Your task to perform on an android device: Go to ESPN.com Image 0: 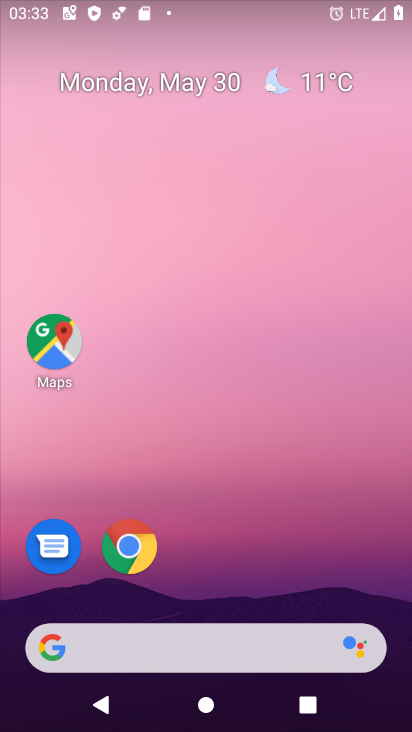
Step 0: press home button
Your task to perform on an android device: Go to ESPN.com Image 1: 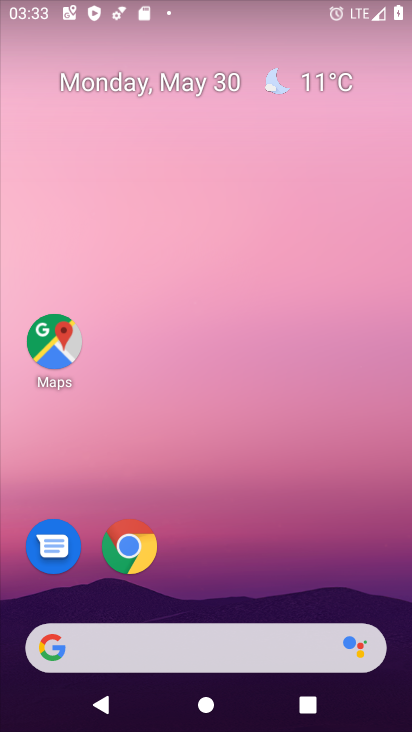
Step 1: click (126, 546)
Your task to perform on an android device: Go to ESPN.com Image 2: 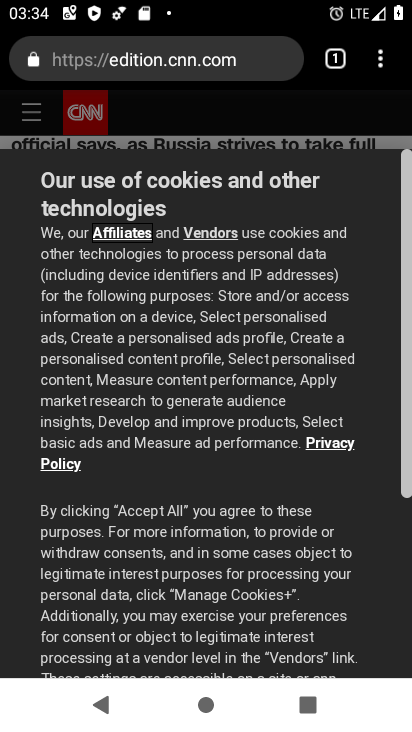
Step 2: drag from (207, 637) to (204, 214)
Your task to perform on an android device: Go to ESPN.com Image 3: 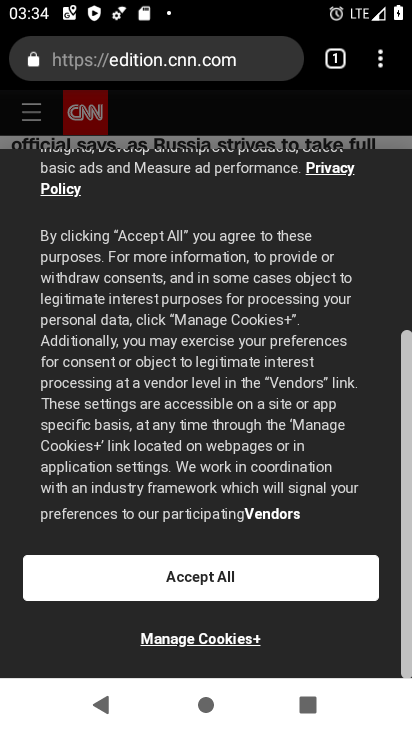
Step 3: click (220, 577)
Your task to perform on an android device: Go to ESPN.com Image 4: 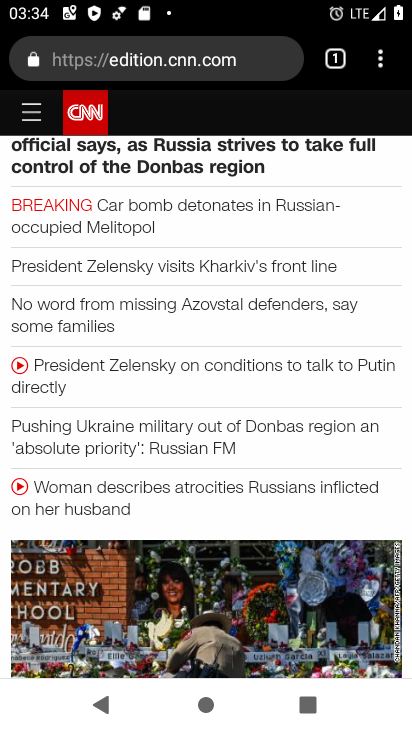
Step 4: click (329, 56)
Your task to perform on an android device: Go to ESPN.com Image 5: 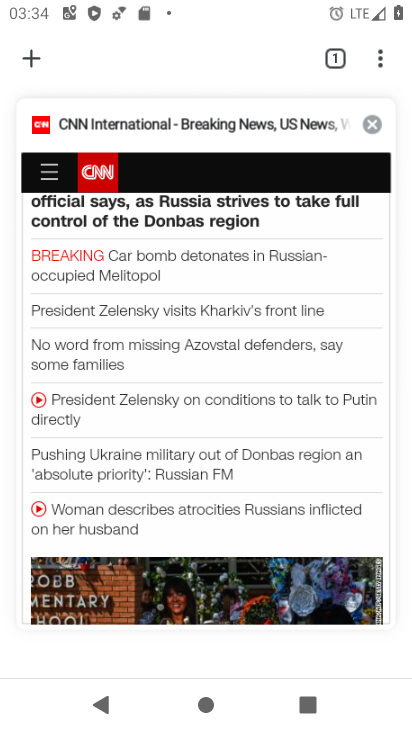
Step 5: click (370, 129)
Your task to perform on an android device: Go to ESPN.com Image 6: 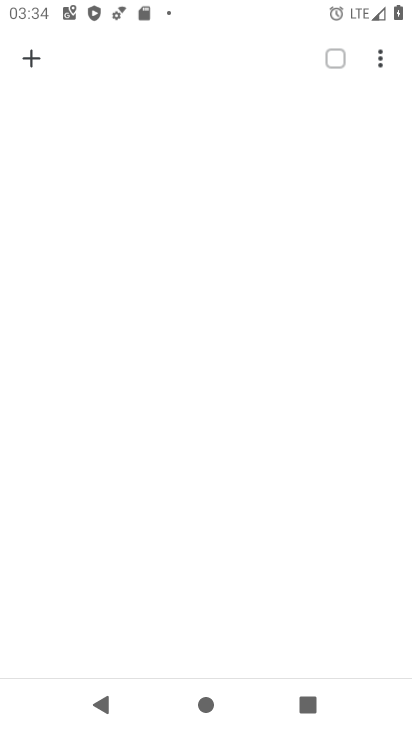
Step 6: click (29, 53)
Your task to perform on an android device: Go to ESPN.com Image 7: 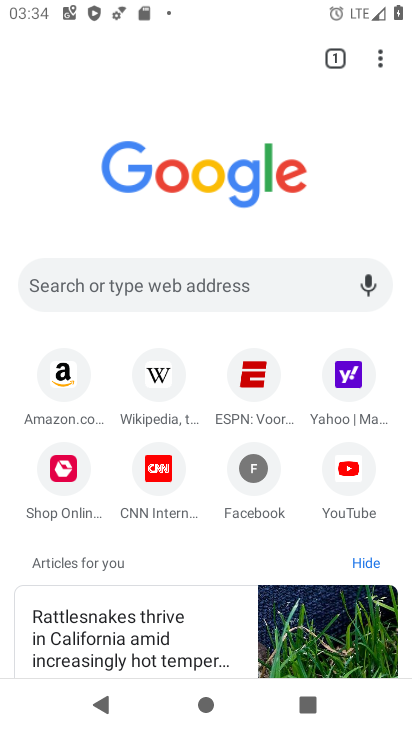
Step 7: click (255, 389)
Your task to perform on an android device: Go to ESPN.com Image 8: 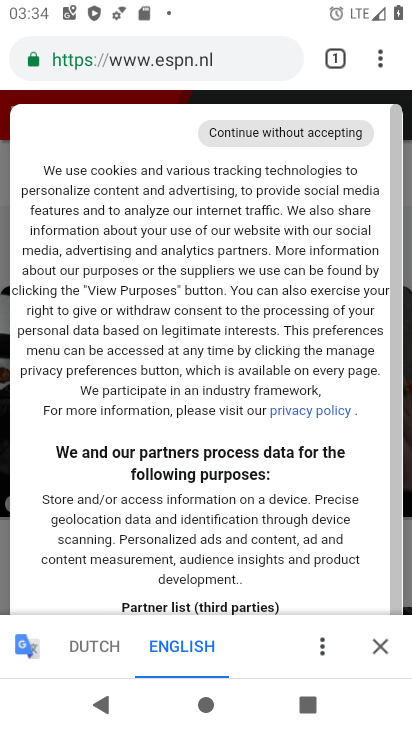
Step 8: drag from (259, 556) to (286, 26)
Your task to perform on an android device: Go to ESPN.com Image 9: 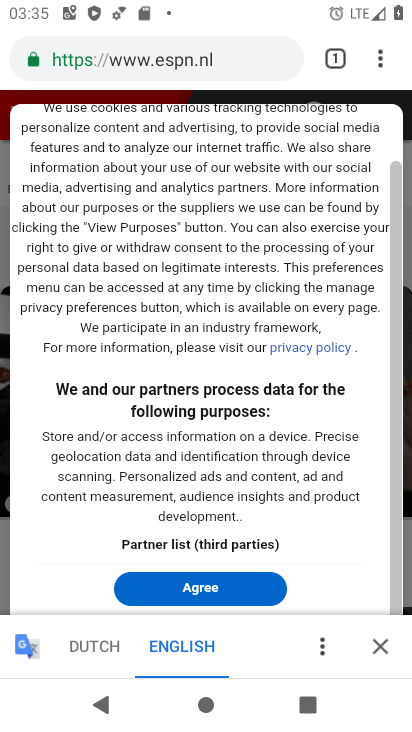
Step 9: click (211, 585)
Your task to perform on an android device: Go to ESPN.com Image 10: 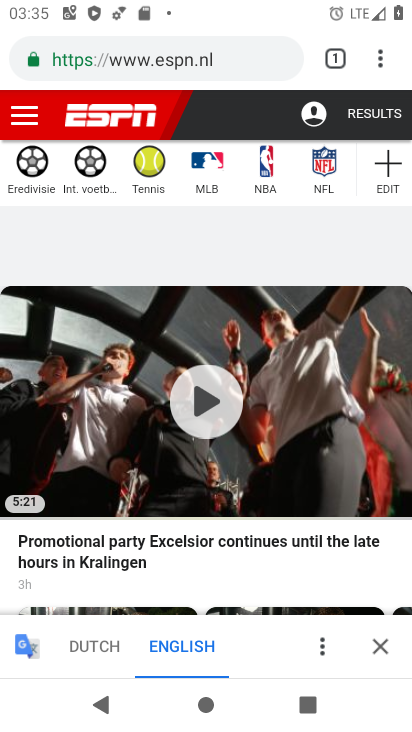
Step 10: task complete